Your task to perform on an android device: Go to CNN.com Image 0: 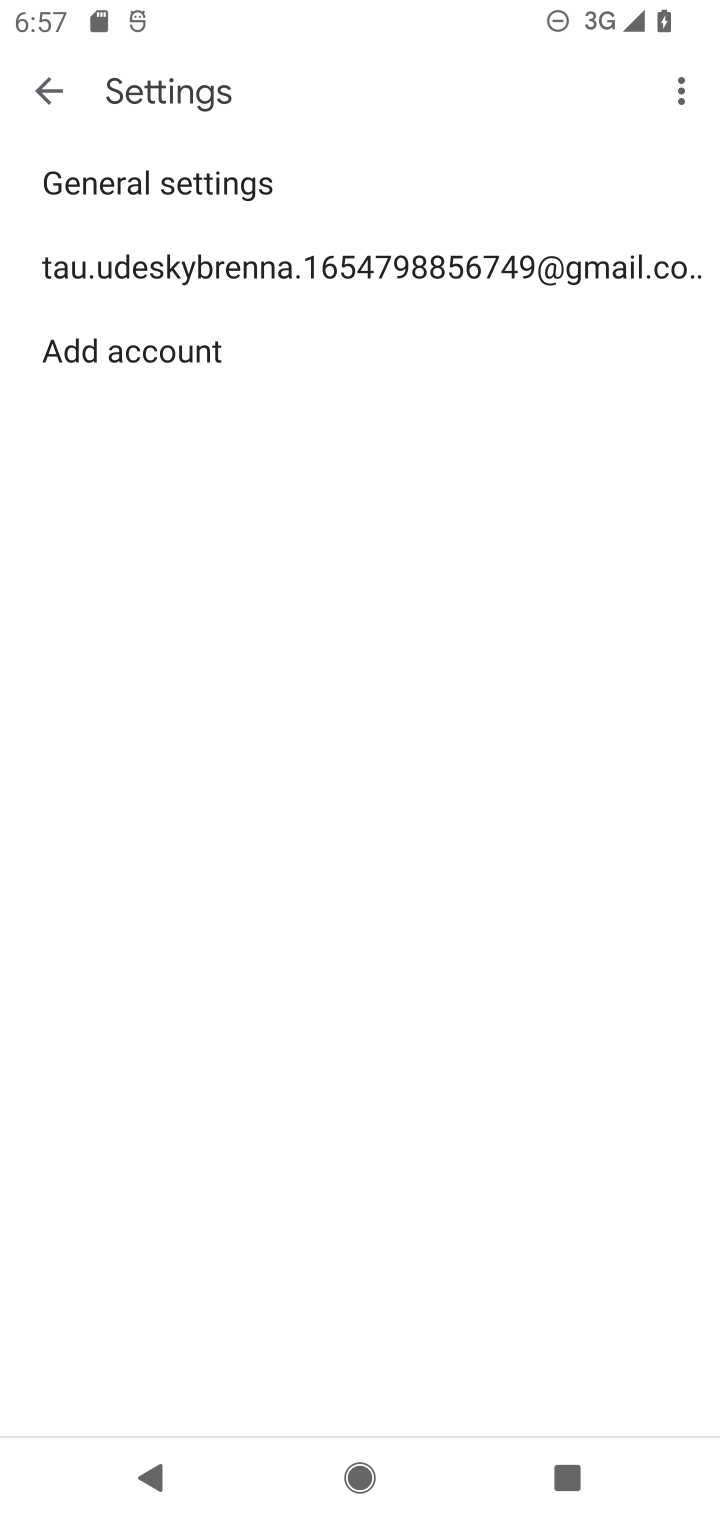
Step 0: press home button
Your task to perform on an android device: Go to CNN.com Image 1: 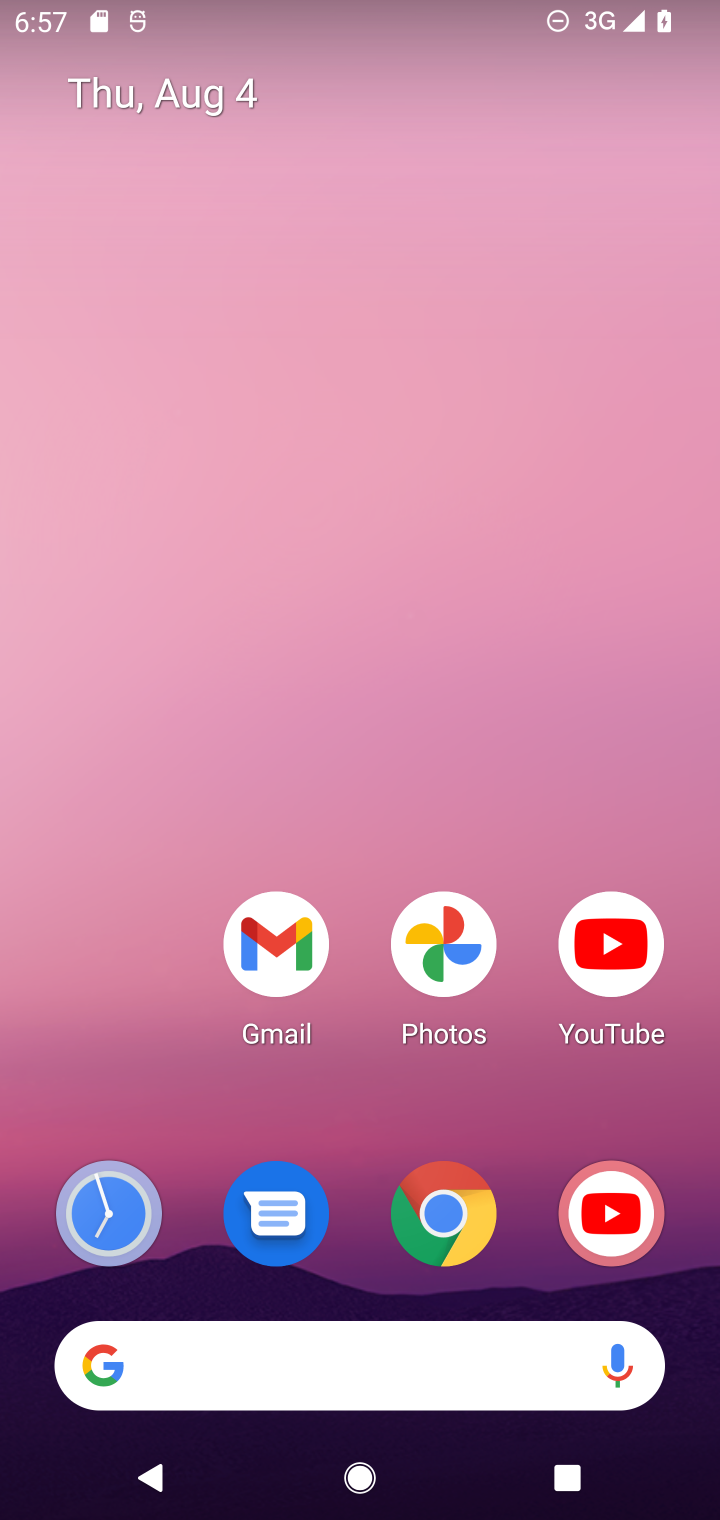
Step 1: drag from (176, 1048) to (149, 256)
Your task to perform on an android device: Go to CNN.com Image 2: 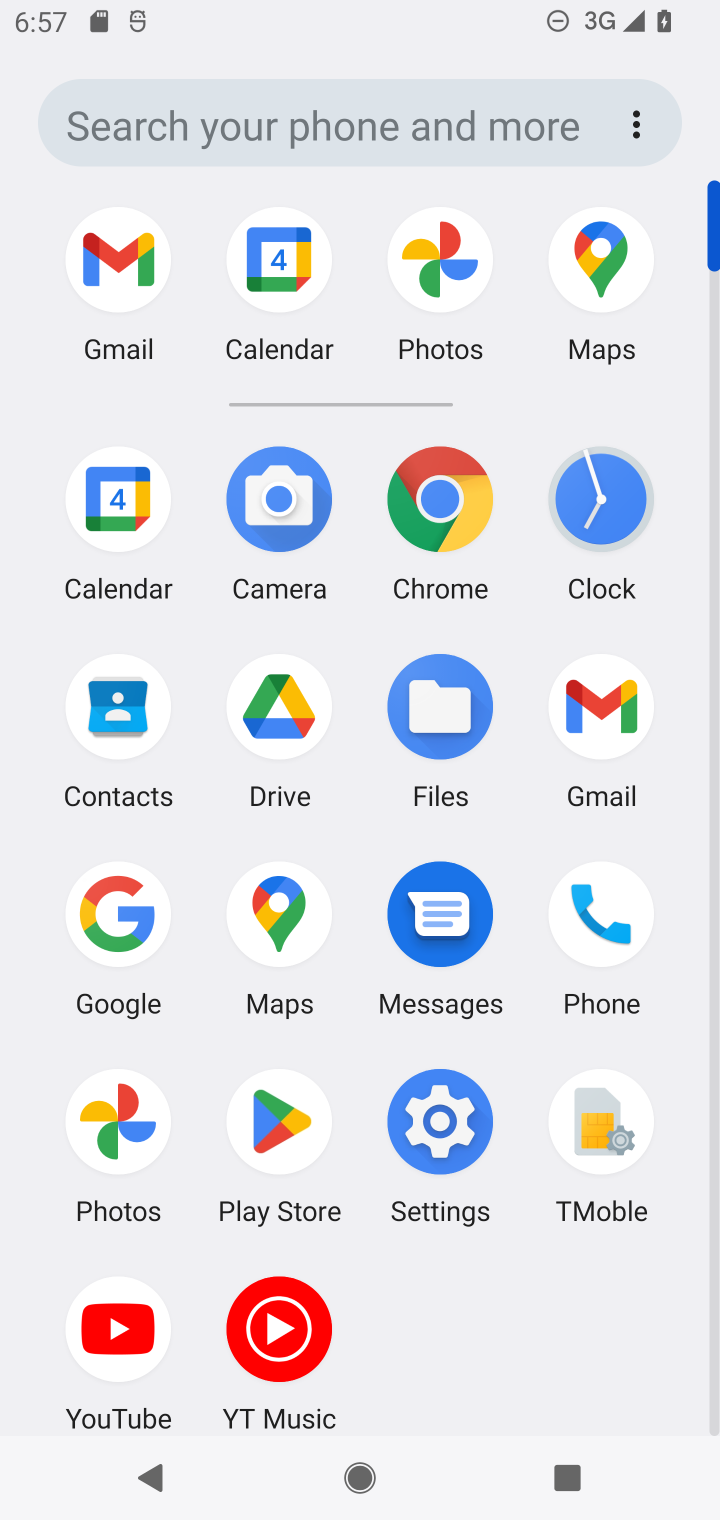
Step 2: click (449, 509)
Your task to perform on an android device: Go to CNN.com Image 3: 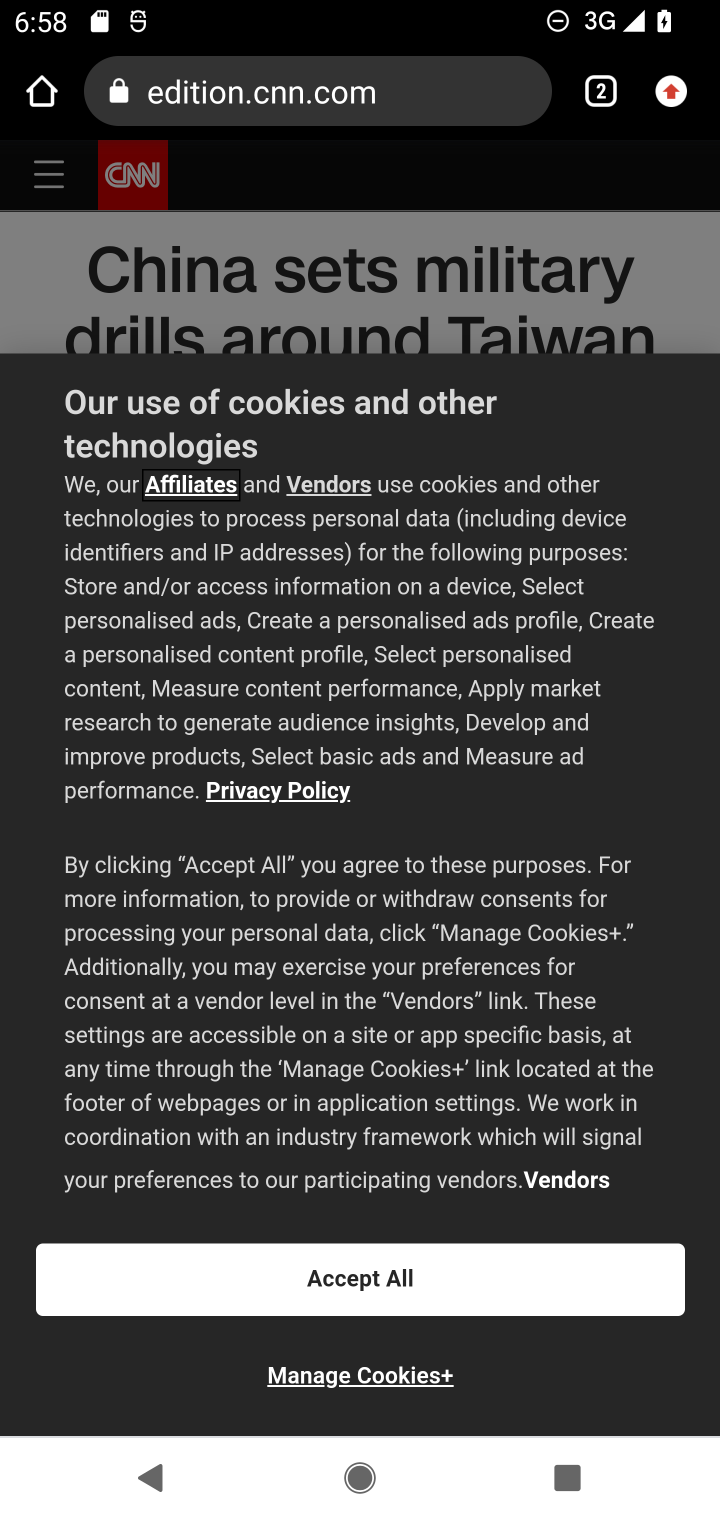
Step 3: task complete